Your task to perform on an android device: Go to Android settings Image 0: 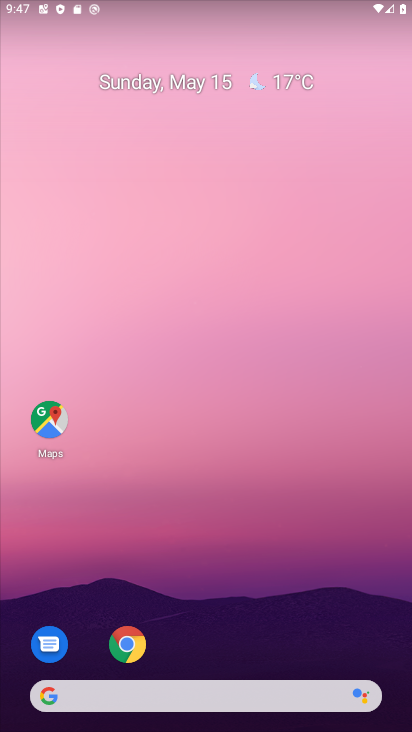
Step 0: press home button
Your task to perform on an android device: Go to Android settings Image 1: 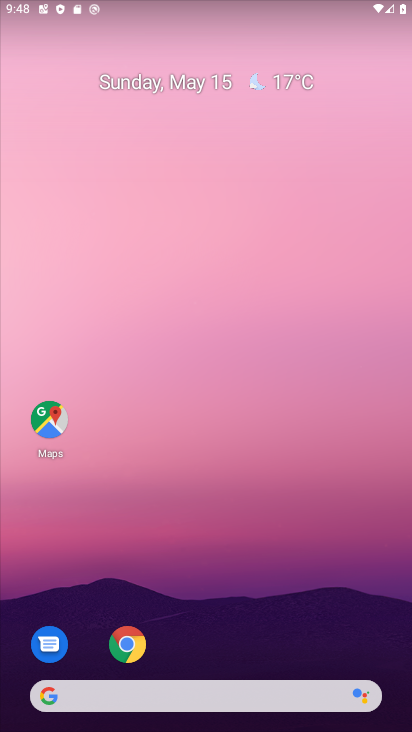
Step 1: drag from (284, 669) to (203, 222)
Your task to perform on an android device: Go to Android settings Image 2: 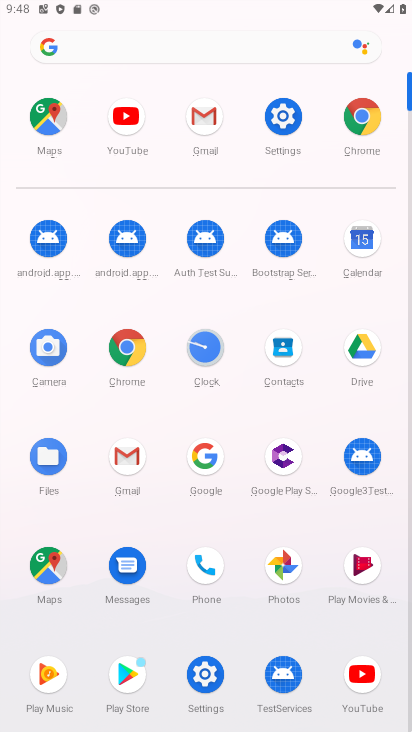
Step 2: click (273, 129)
Your task to perform on an android device: Go to Android settings Image 3: 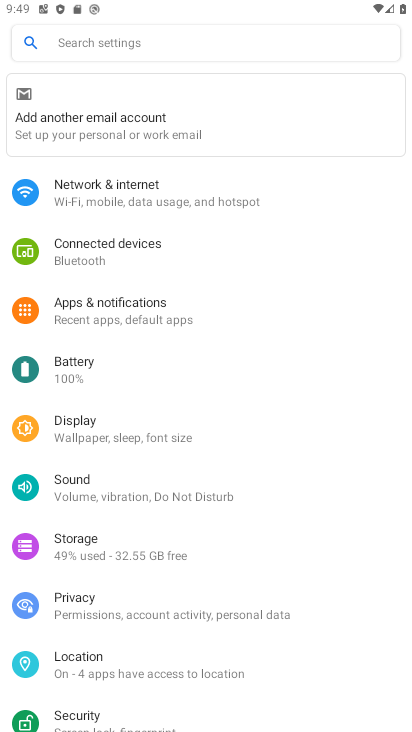
Step 3: click (136, 39)
Your task to perform on an android device: Go to Android settings Image 4: 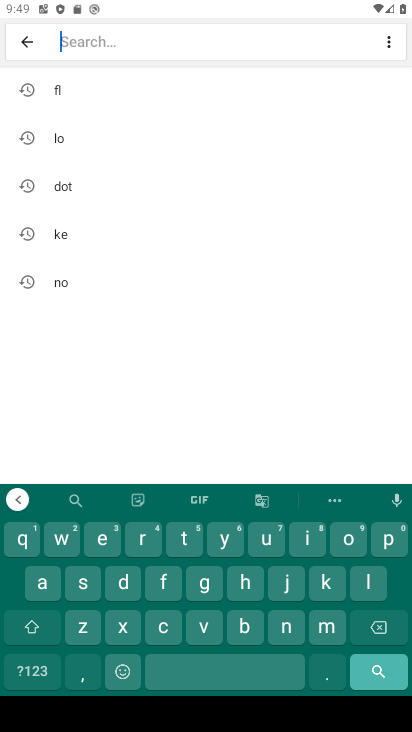
Step 4: click (39, 583)
Your task to perform on an android device: Go to Android settings Image 5: 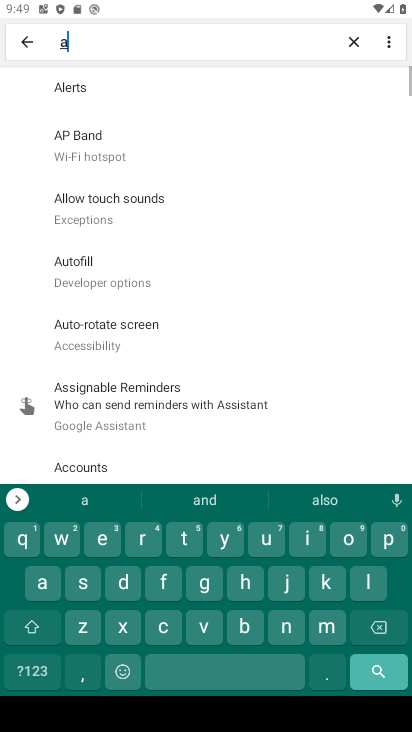
Step 5: click (294, 630)
Your task to perform on an android device: Go to Android settings Image 6: 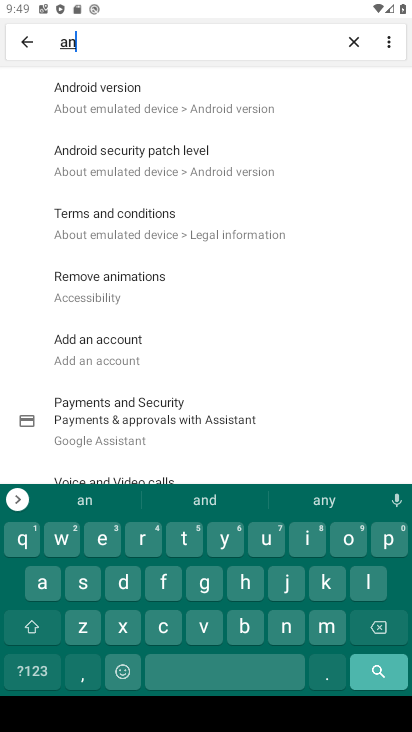
Step 6: click (160, 101)
Your task to perform on an android device: Go to Android settings Image 7: 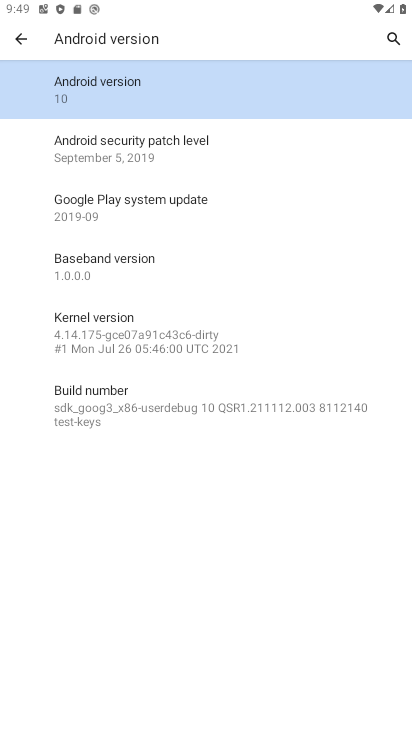
Step 7: task complete